Your task to perform on an android device: add a contact Image 0: 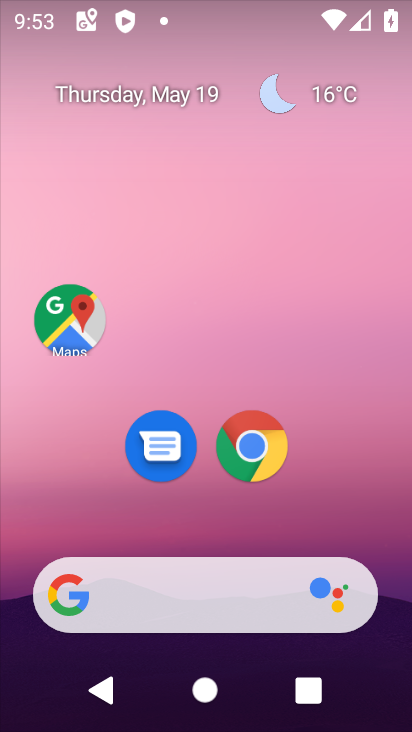
Step 0: drag from (202, 534) to (258, 13)
Your task to perform on an android device: add a contact Image 1: 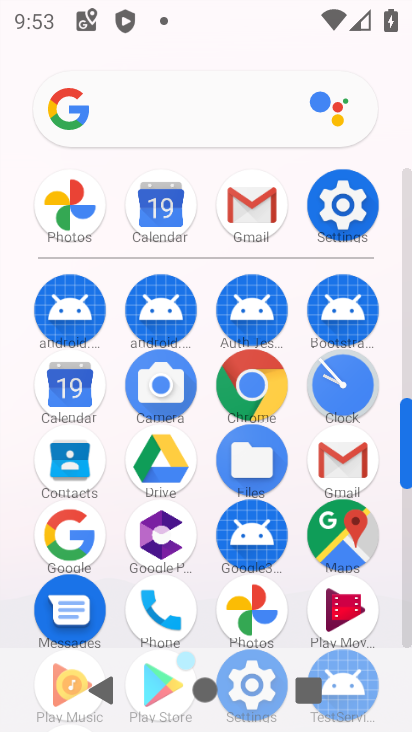
Step 1: click (79, 475)
Your task to perform on an android device: add a contact Image 2: 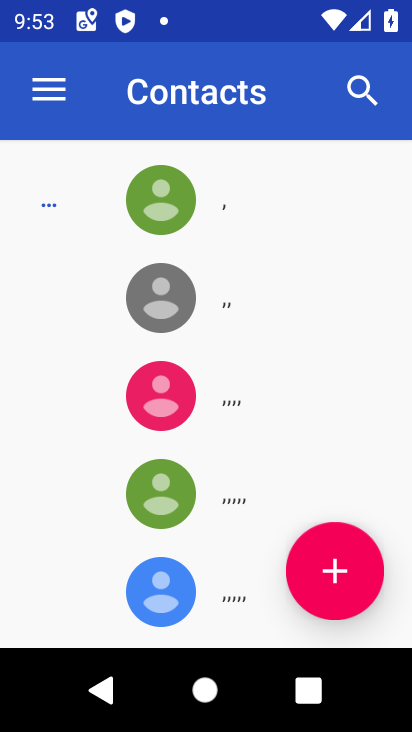
Step 2: click (330, 564)
Your task to perform on an android device: add a contact Image 3: 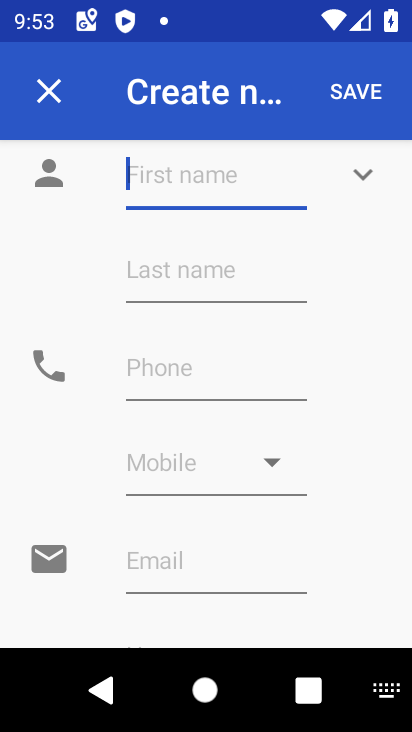
Step 3: type "freak"
Your task to perform on an android device: add a contact Image 4: 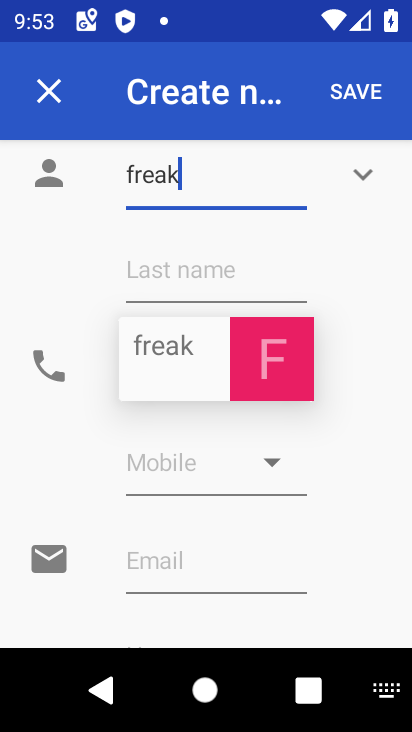
Step 4: type "lin'"
Your task to perform on an android device: add a contact Image 5: 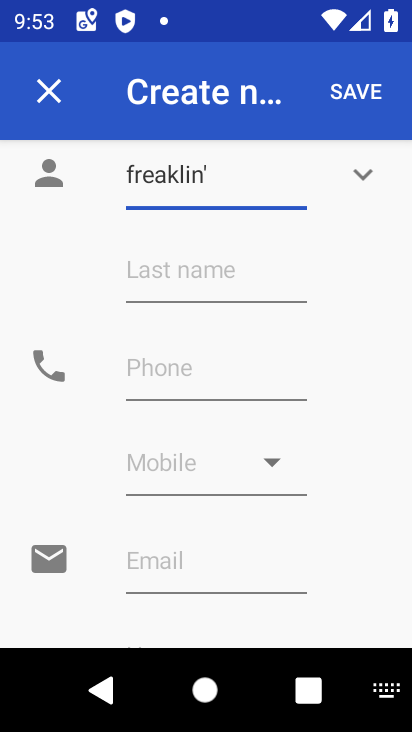
Step 5: click (367, 90)
Your task to perform on an android device: add a contact Image 6: 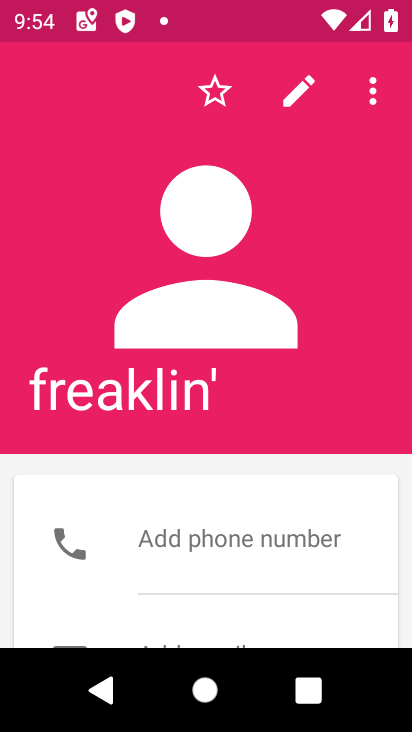
Step 6: task complete